Your task to perform on an android device: allow notifications from all sites in the chrome app Image 0: 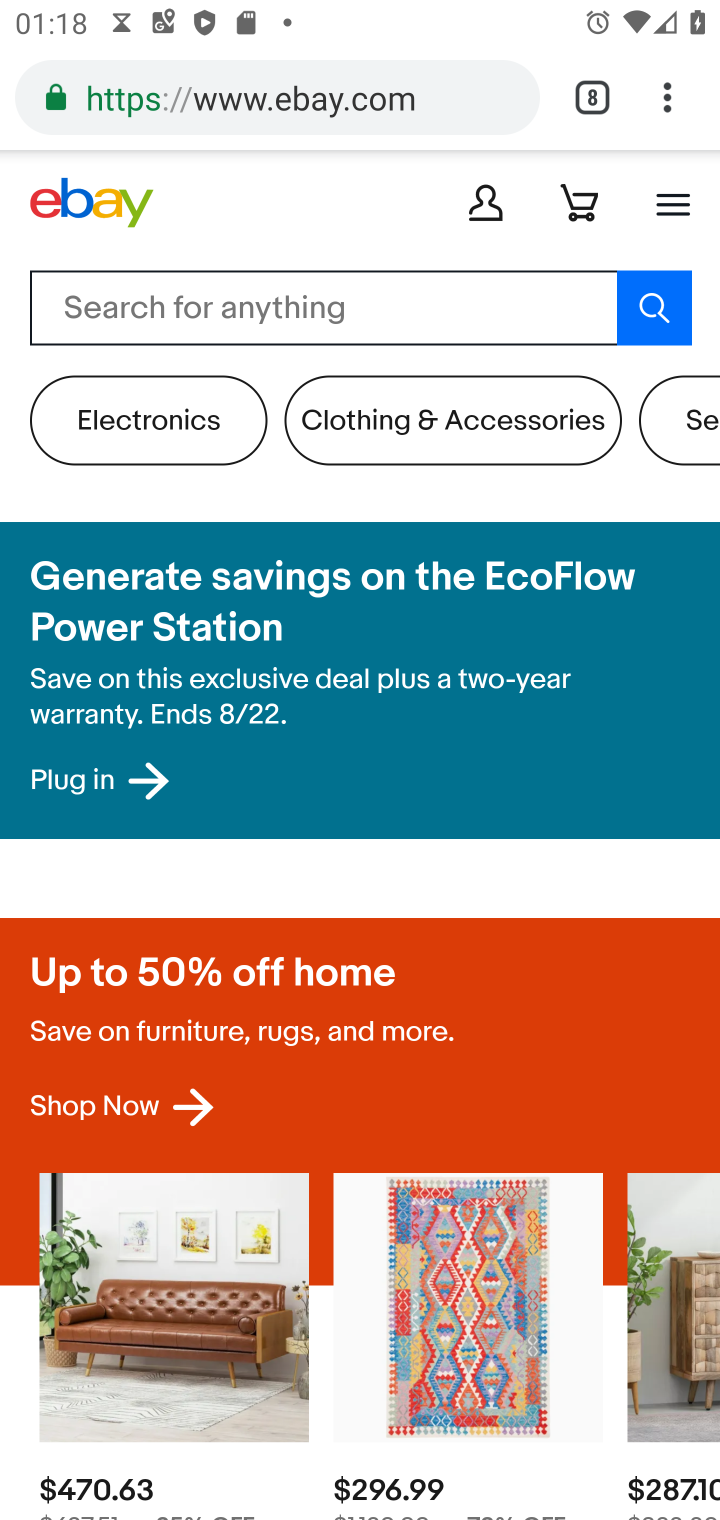
Step 0: press home button
Your task to perform on an android device: allow notifications from all sites in the chrome app Image 1: 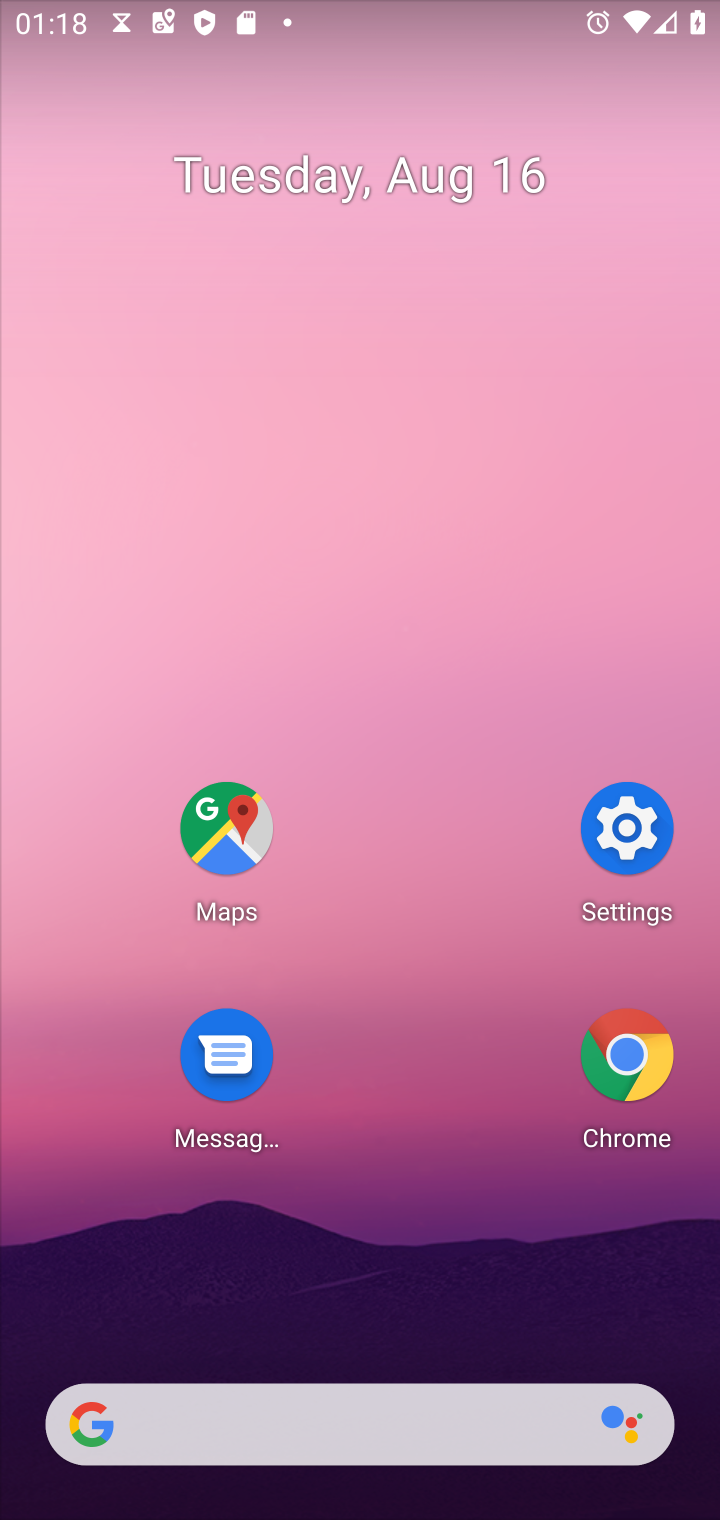
Step 1: click (626, 1050)
Your task to perform on an android device: allow notifications from all sites in the chrome app Image 2: 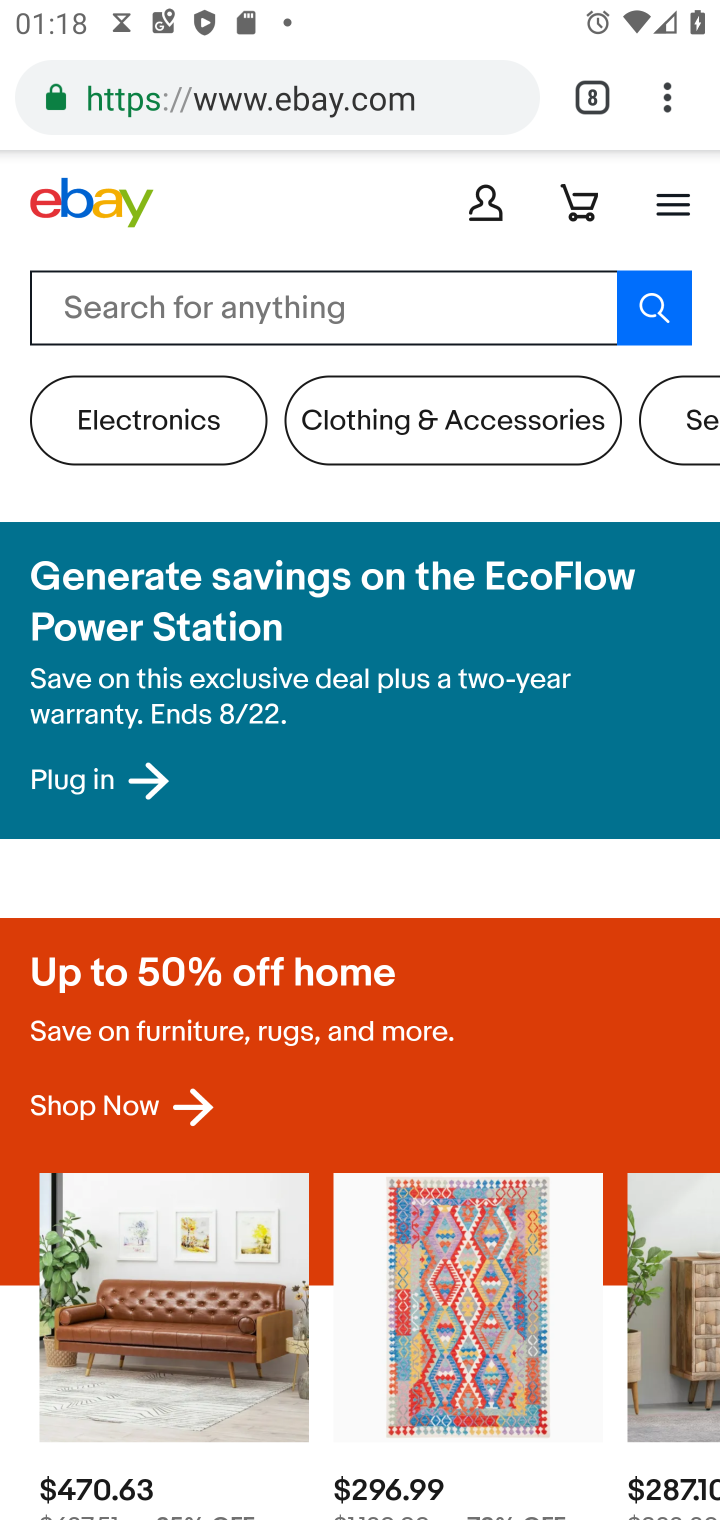
Step 2: drag from (667, 92) to (367, 1194)
Your task to perform on an android device: allow notifications from all sites in the chrome app Image 3: 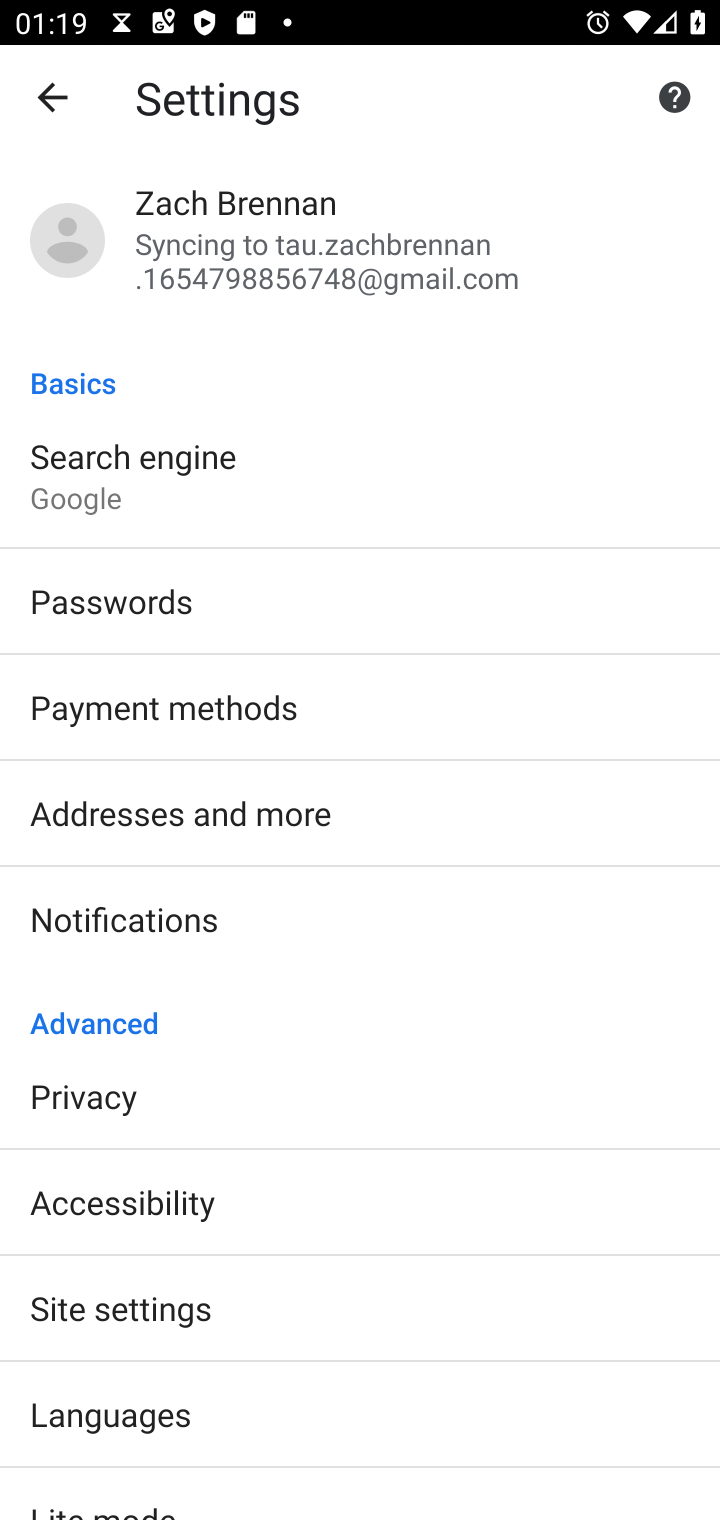
Step 3: drag from (431, 1053) to (700, 640)
Your task to perform on an android device: allow notifications from all sites in the chrome app Image 4: 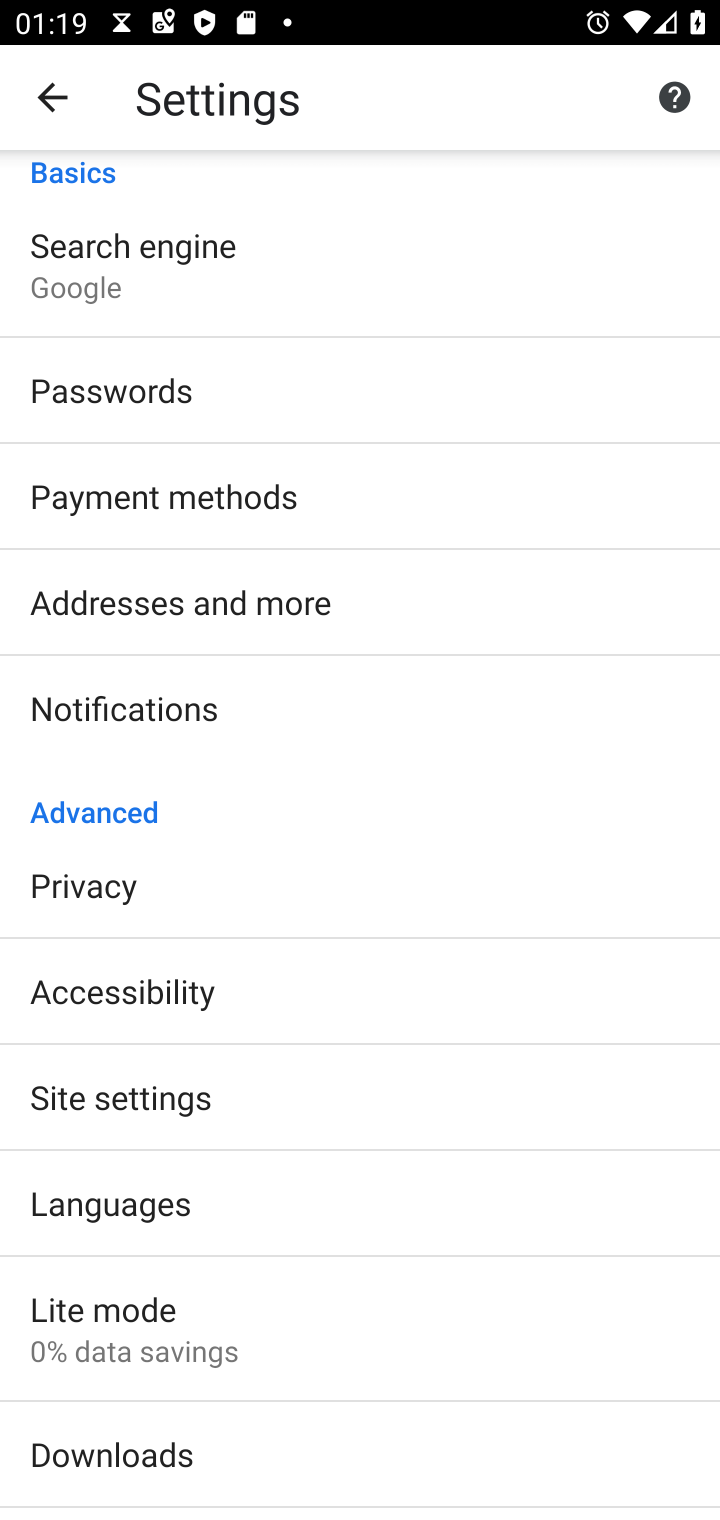
Step 4: click (166, 1096)
Your task to perform on an android device: allow notifications from all sites in the chrome app Image 5: 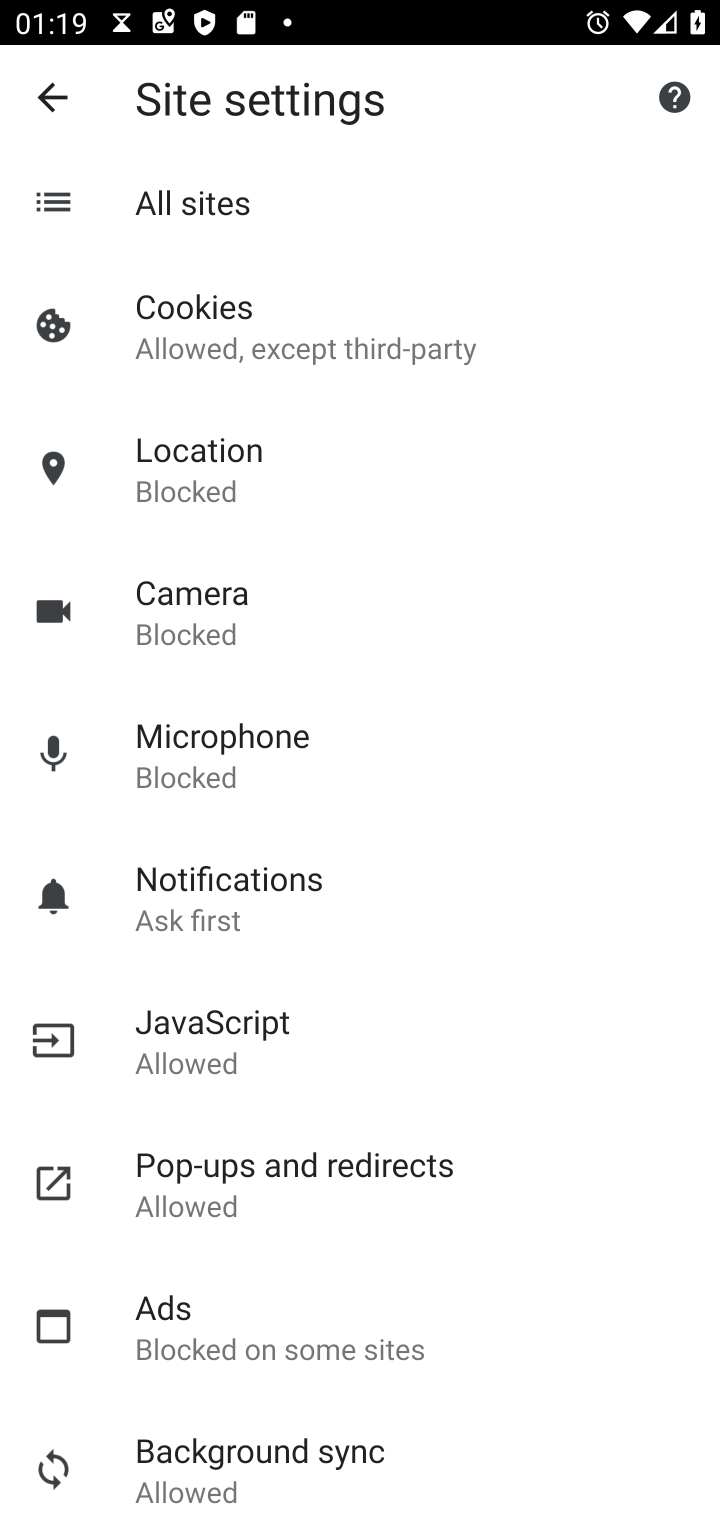
Step 5: click (205, 888)
Your task to perform on an android device: allow notifications from all sites in the chrome app Image 6: 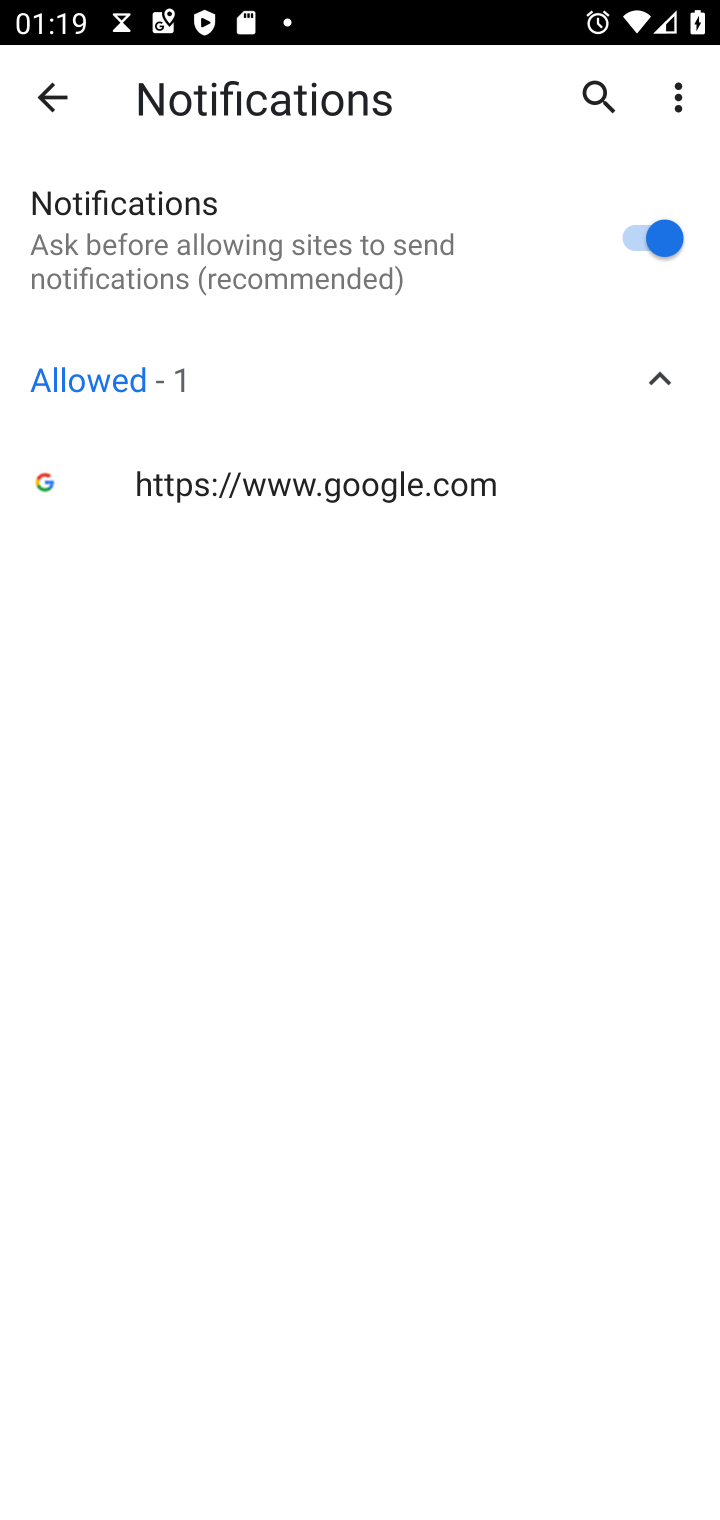
Step 6: task complete